Your task to perform on an android device: Show me popular games on the Play Store Image 0: 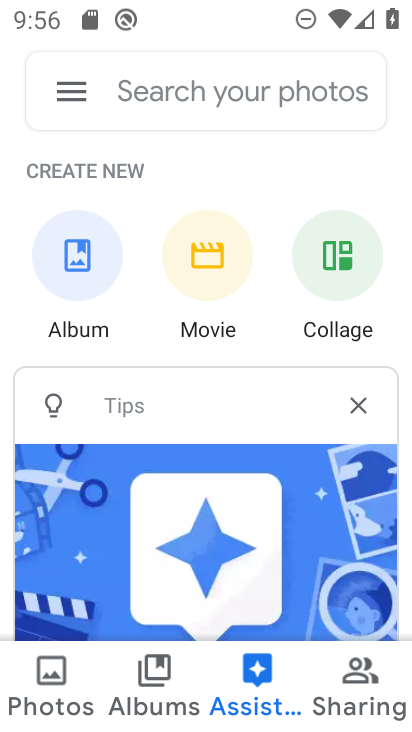
Step 0: press home button
Your task to perform on an android device: Show me popular games on the Play Store Image 1: 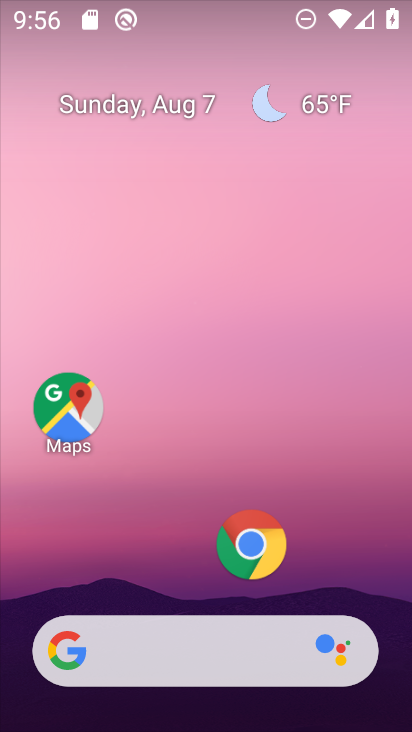
Step 1: drag from (196, 587) to (261, 22)
Your task to perform on an android device: Show me popular games on the Play Store Image 2: 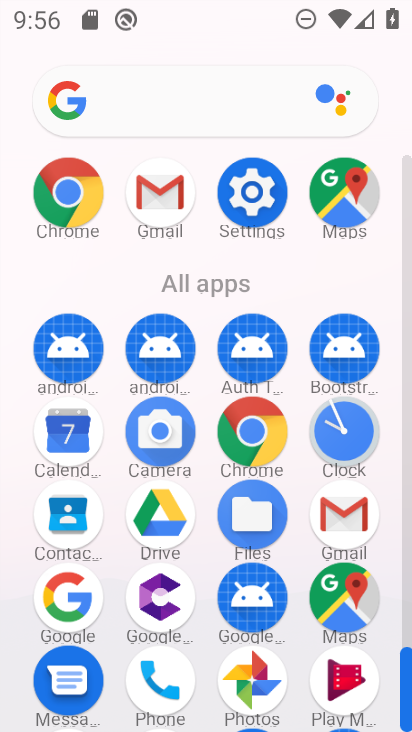
Step 2: drag from (218, 652) to (233, 107)
Your task to perform on an android device: Show me popular games on the Play Store Image 3: 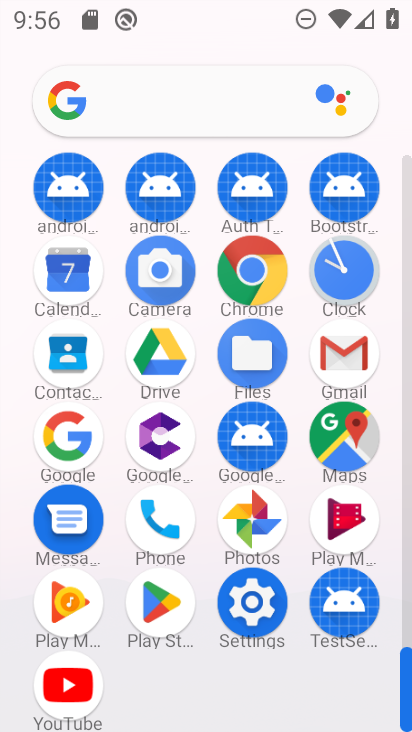
Step 3: click (152, 614)
Your task to perform on an android device: Show me popular games on the Play Store Image 4: 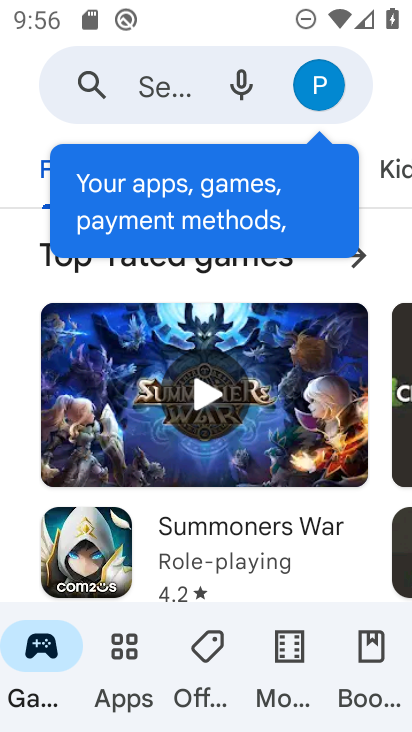
Step 4: drag from (228, 475) to (226, 98)
Your task to perform on an android device: Show me popular games on the Play Store Image 5: 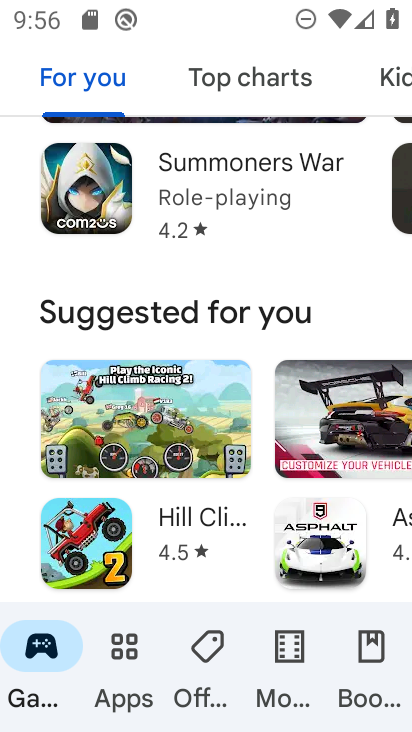
Step 5: drag from (244, 585) to (197, 80)
Your task to perform on an android device: Show me popular games on the Play Store Image 6: 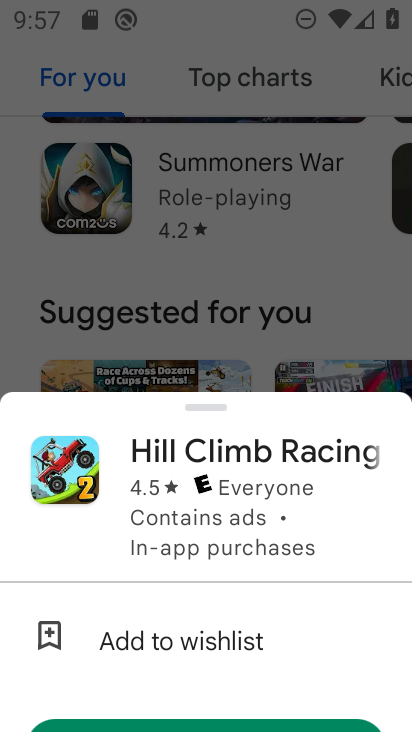
Step 6: click (246, 297)
Your task to perform on an android device: Show me popular games on the Play Store Image 7: 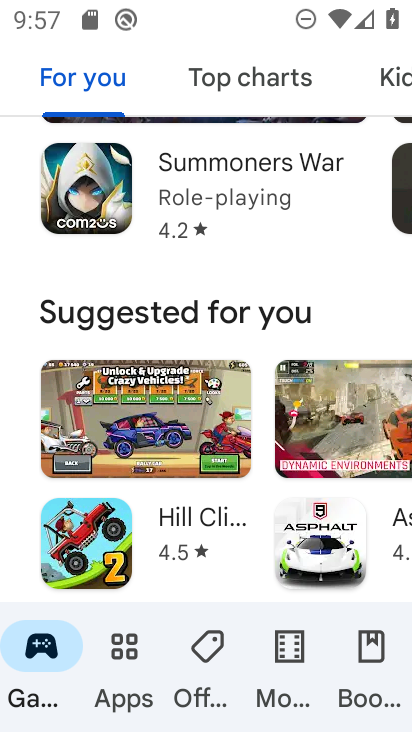
Step 7: drag from (257, 440) to (264, 101)
Your task to perform on an android device: Show me popular games on the Play Store Image 8: 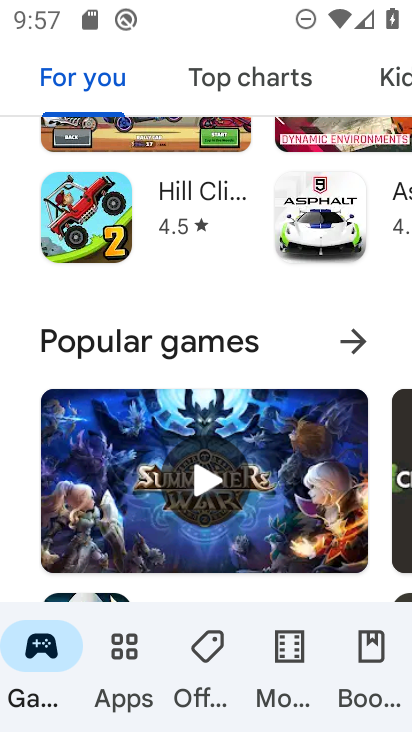
Step 8: click (234, 342)
Your task to perform on an android device: Show me popular games on the Play Store Image 9: 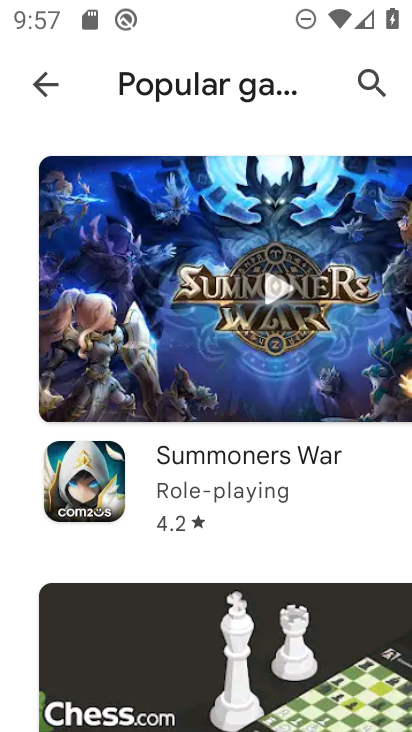
Step 9: task complete